Your task to perform on an android device: Add logitech g pro to the cart on ebay.com, then select checkout. Image 0: 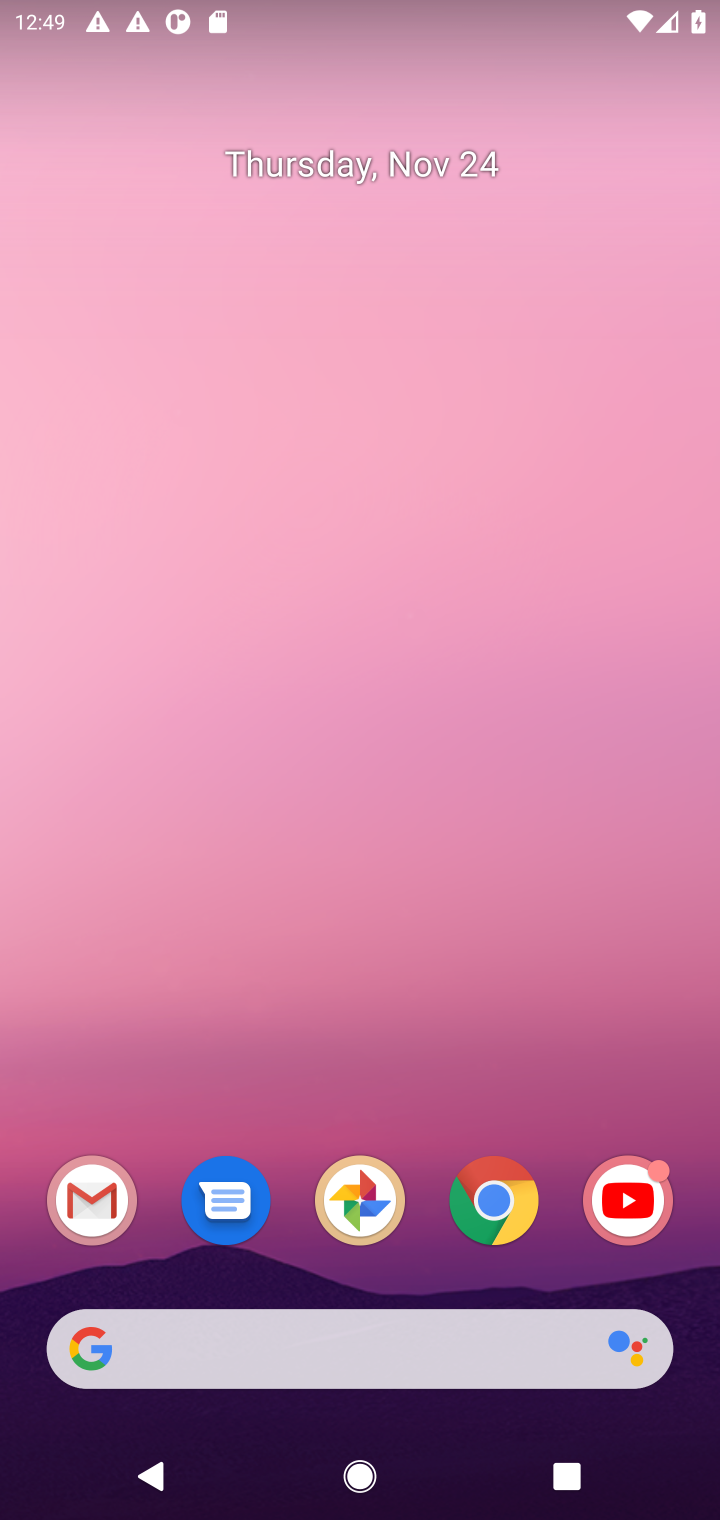
Step 0: click (376, 1355)
Your task to perform on an android device: Add logitech g pro to the cart on ebay.com, then select checkout. Image 1: 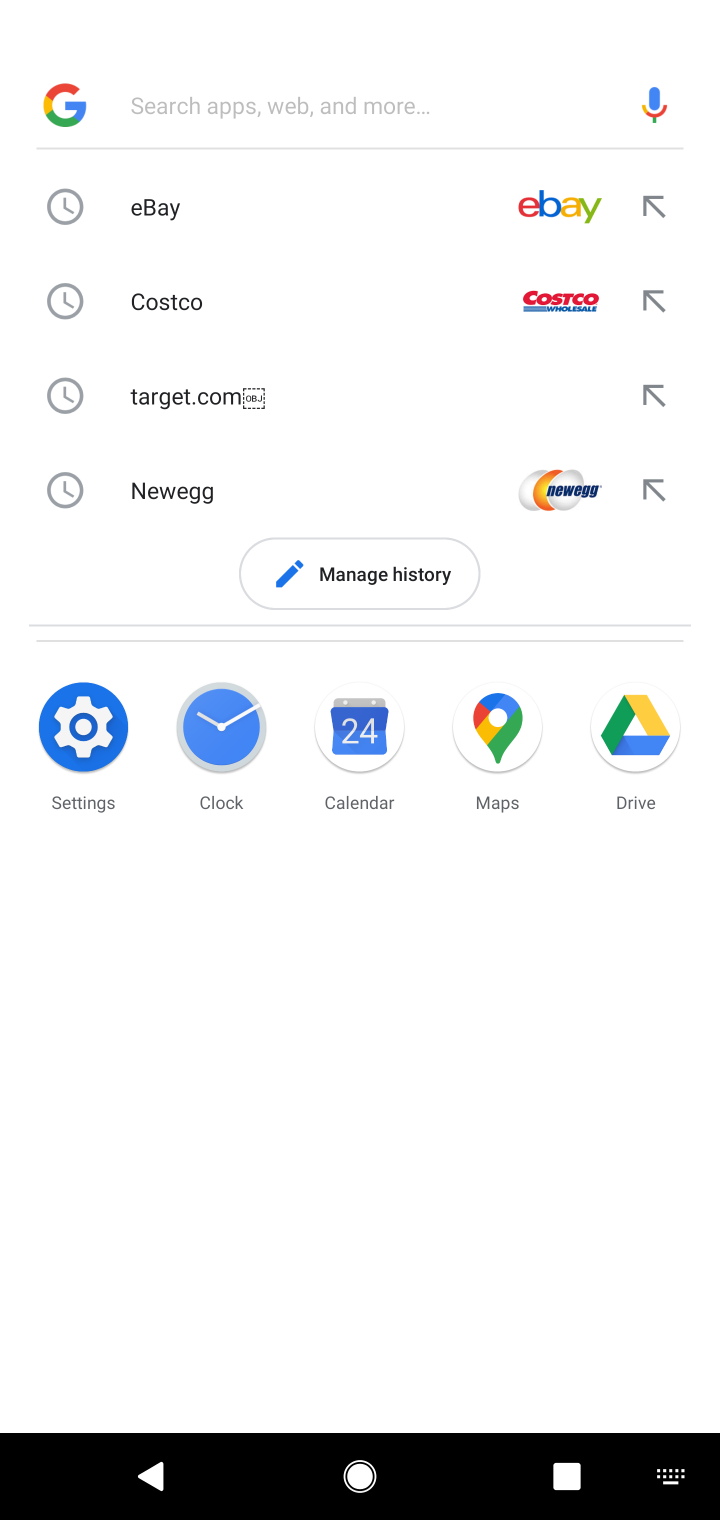
Step 1: click (423, 225)
Your task to perform on an android device: Add logitech g pro to the cart on ebay.com, then select checkout. Image 2: 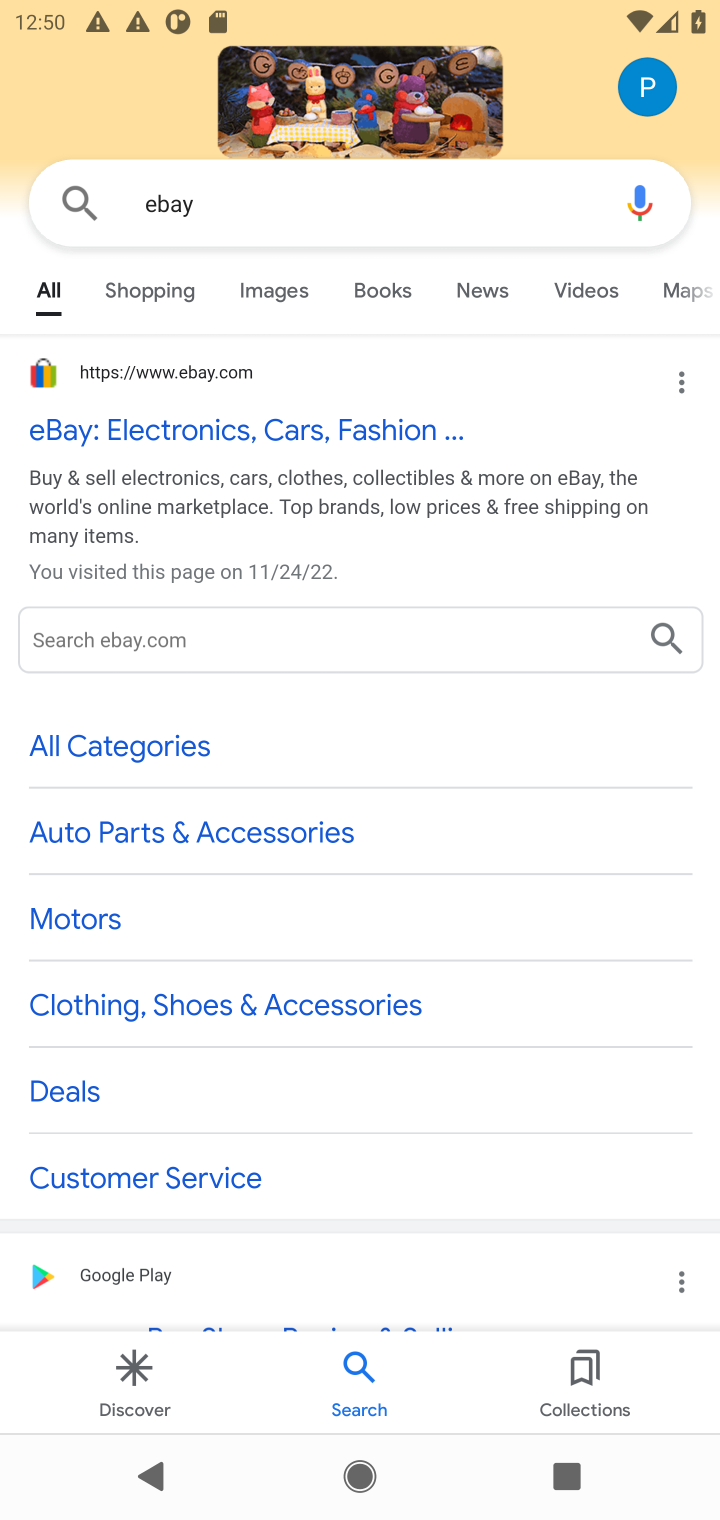
Step 2: task complete